Your task to perform on an android device: What's the weather? Image 0: 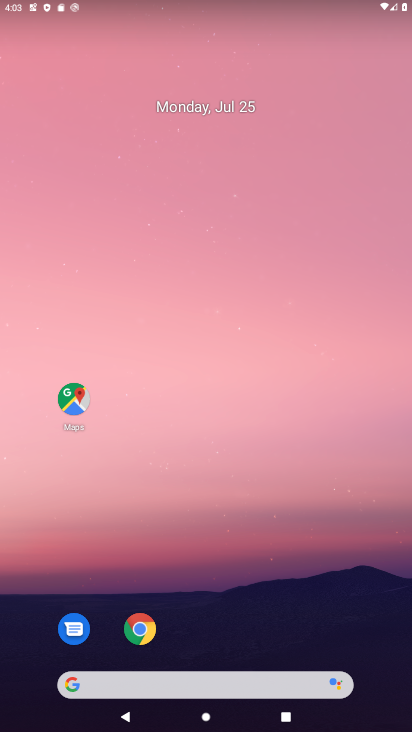
Step 0: drag from (254, 531) to (252, 22)
Your task to perform on an android device: What's the weather? Image 1: 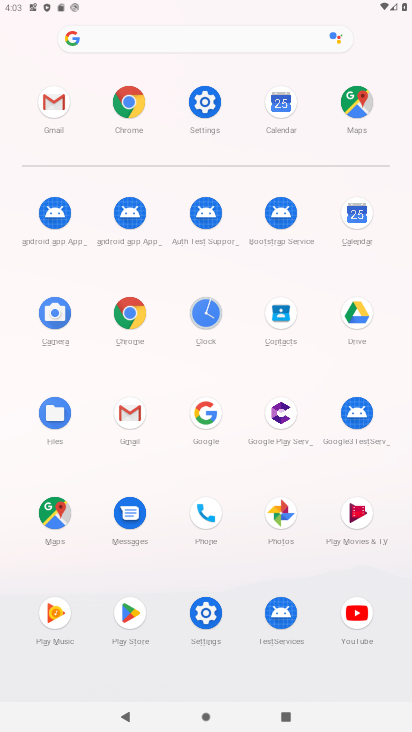
Step 1: click (212, 417)
Your task to perform on an android device: What's the weather? Image 2: 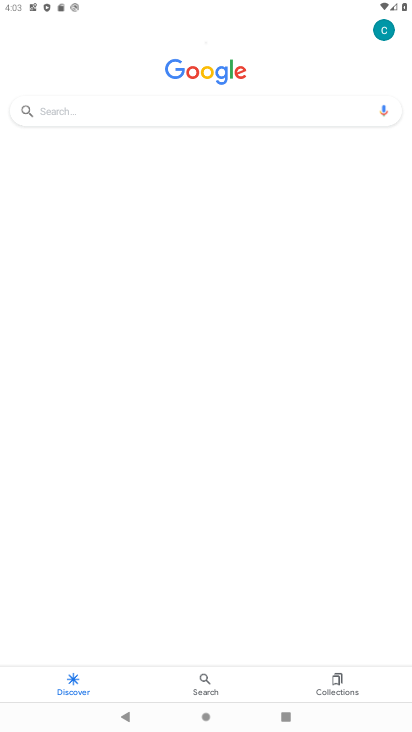
Step 2: click (101, 116)
Your task to perform on an android device: What's the weather? Image 3: 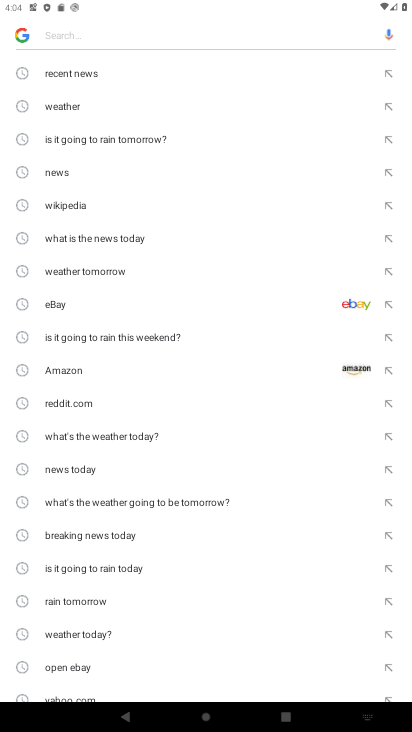
Step 3: click (108, 434)
Your task to perform on an android device: What's the weather? Image 4: 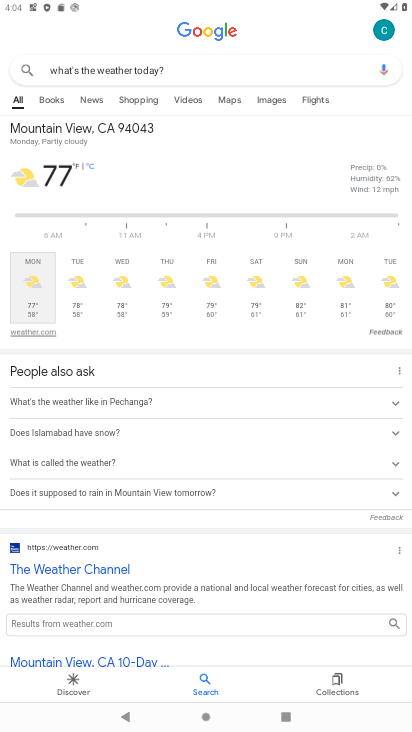
Step 4: task complete